Your task to perform on an android device: turn on the 12-hour format for clock Image 0: 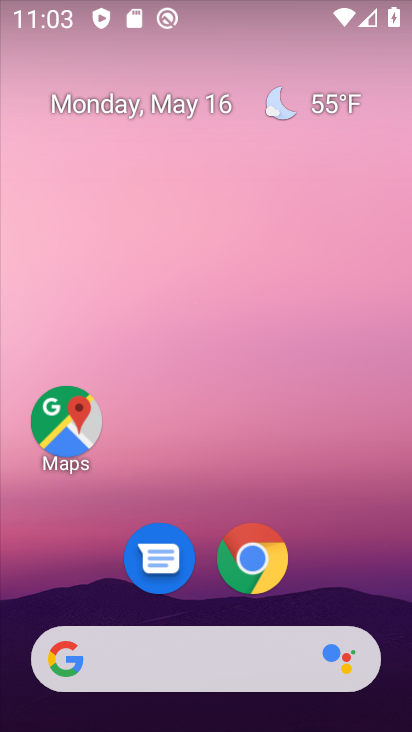
Step 0: drag from (330, 577) to (304, 151)
Your task to perform on an android device: turn on the 12-hour format for clock Image 1: 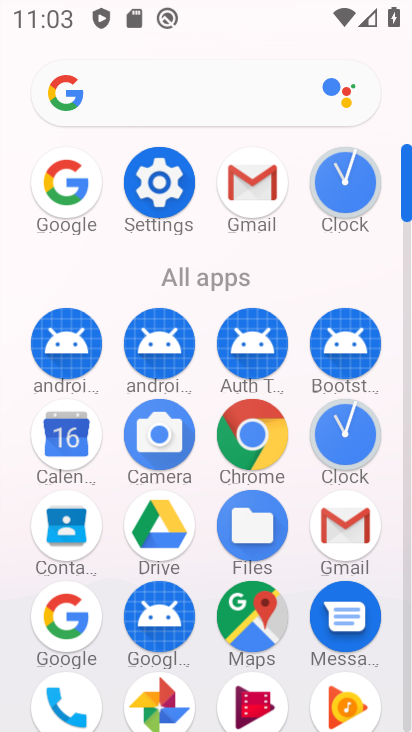
Step 1: click (332, 433)
Your task to perform on an android device: turn on the 12-hour format for clock Image 2: 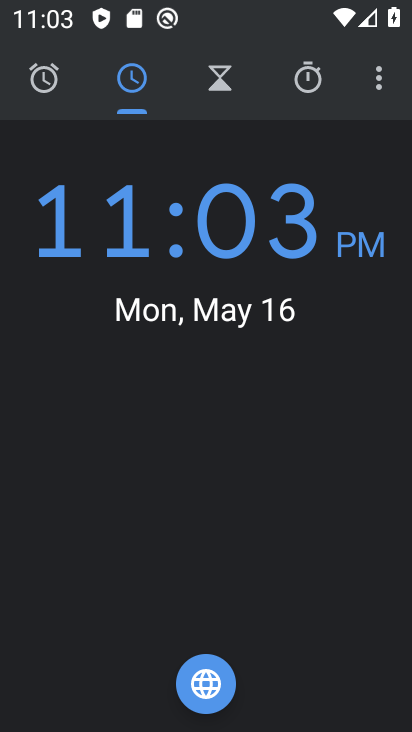
Step 2: click (373, 82)
Your task to perform on an android device: turn on the 12-hour format for clock Image 3: 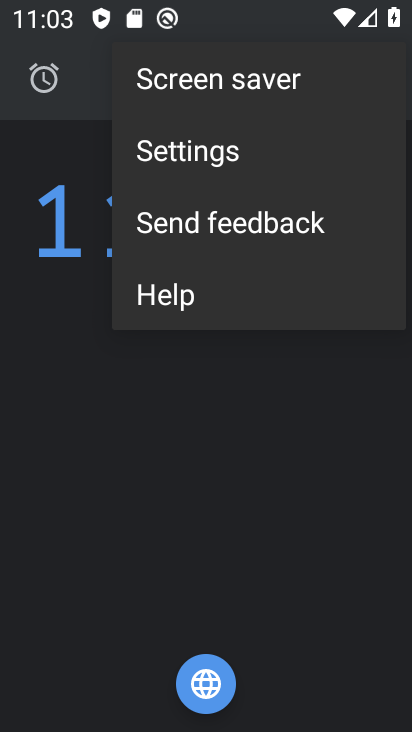
Step 3: click (175, 163)
Your task to perform on an android device: turn on the 12-hour format for clock Image 4: 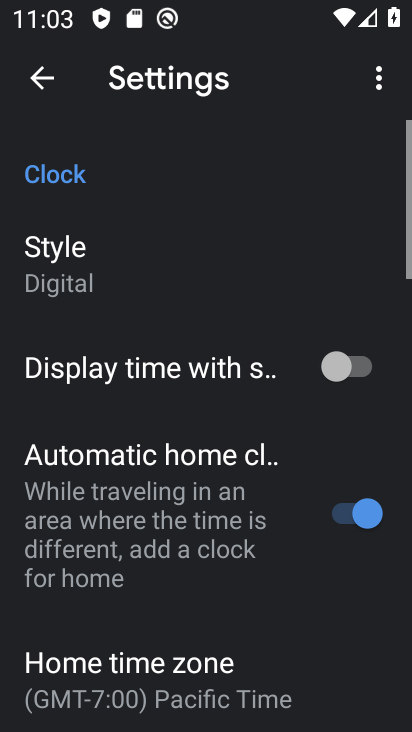
Step 4: drag from (185, 618) to (183, 268)
Your task to perform on an android device: turn on the 12-hour format for clock Image 5: 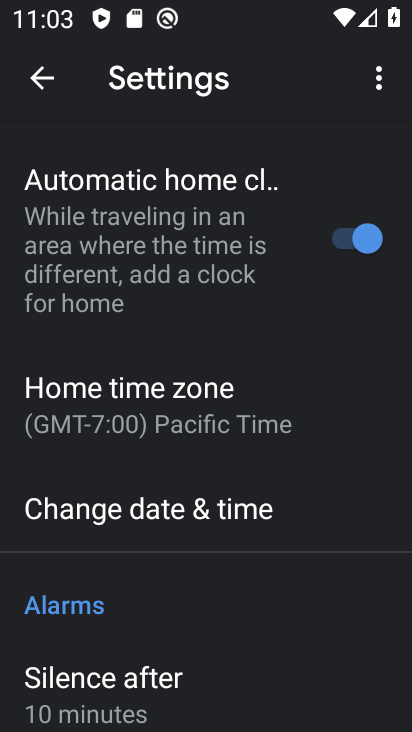
Step 5: click (148, 525)
Your task to perform on an android device: turn on the 12-hour format for clock Image 6: 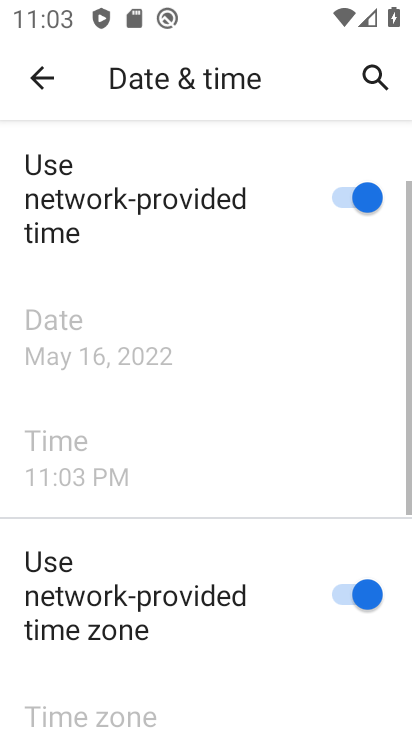
Step 6: task complete